Your task to perform on an android device: clear history in the chrome app Image 0: 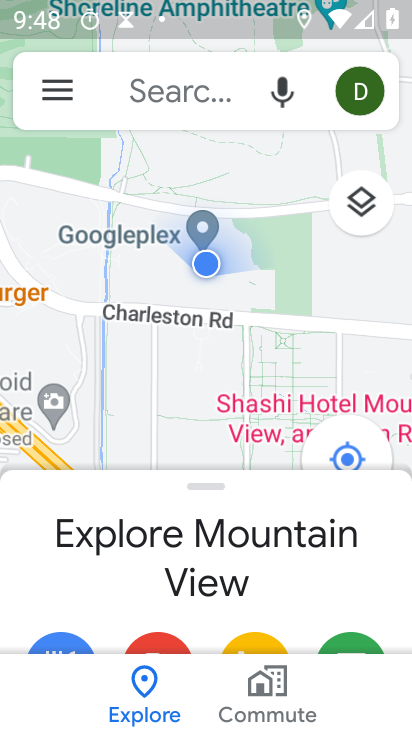
Step 0: press home button
Your task to perform on an android device: clear history in the chrome app Image 1: 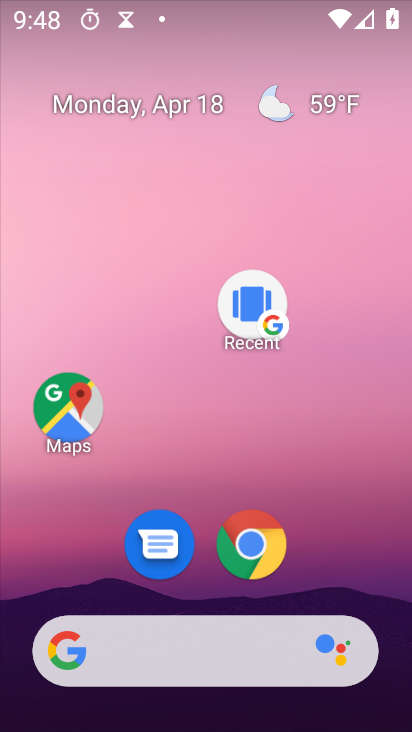
Step 1: drag from (393, 580) to (321, 134)
Your task to perform on an android device: clear history in the chrome app Image 2: 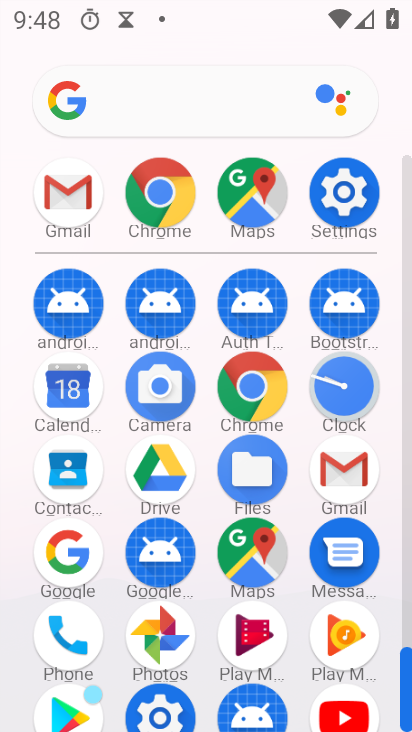
Step 2: click (257, 391)
Your task to perform on an android device: clear history in the chrome app Image 3: 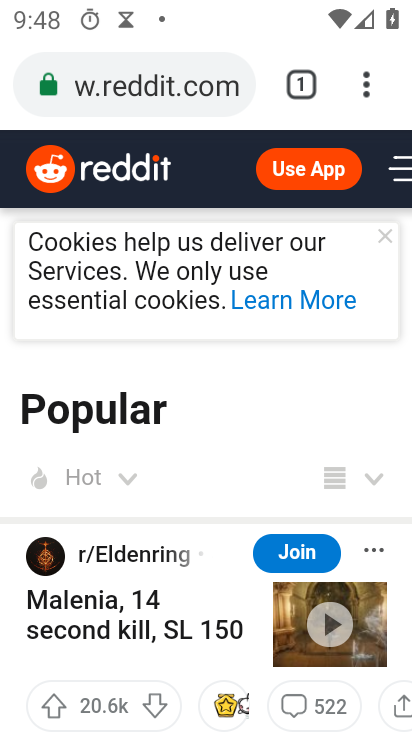
Step 3: click (366, 91)
Your task to perform on an android device: clear history in the chrome app Image 4: 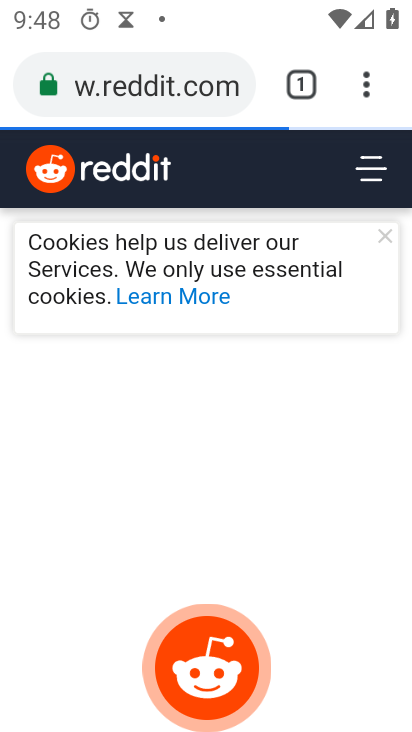
Step 4: drag from (366, 91) to (228, 489)
Your task to perform on an android device: clear history in the chrome app Image 5: 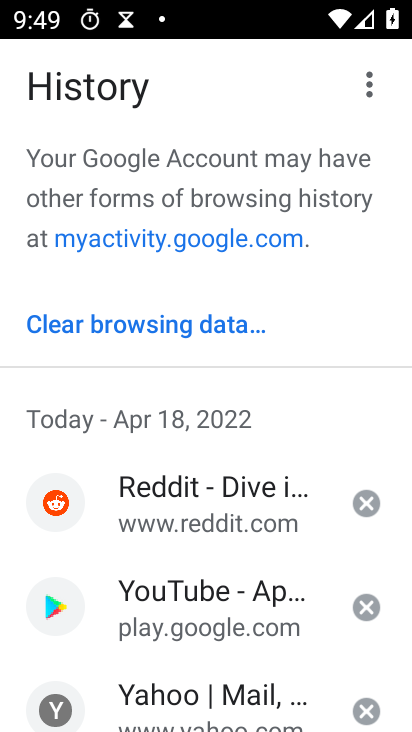
Step 5: click (179, 315)
Your task to perform on an android device: clear history in the chrome app Image 6: 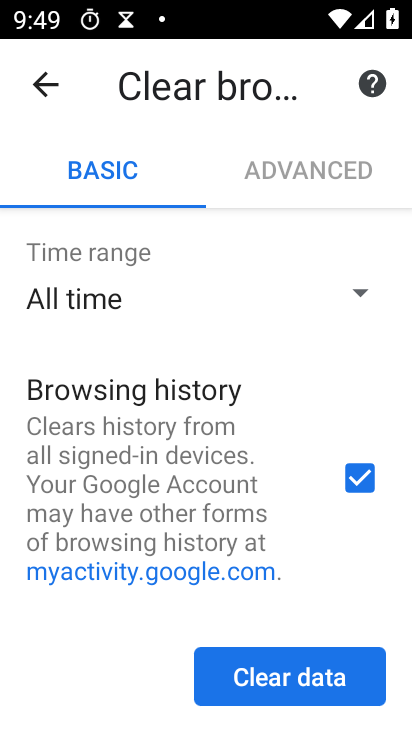
Step 6: click (287, 700)
Your task to perform on an android device: clear history in the chrome app Image 7: 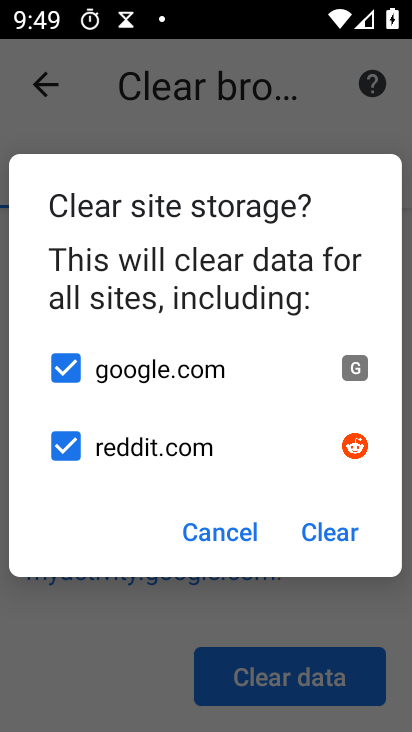
Step 7: click (322, 543)
Your task to perform on an android device: clear history in the chrome app Image 8: 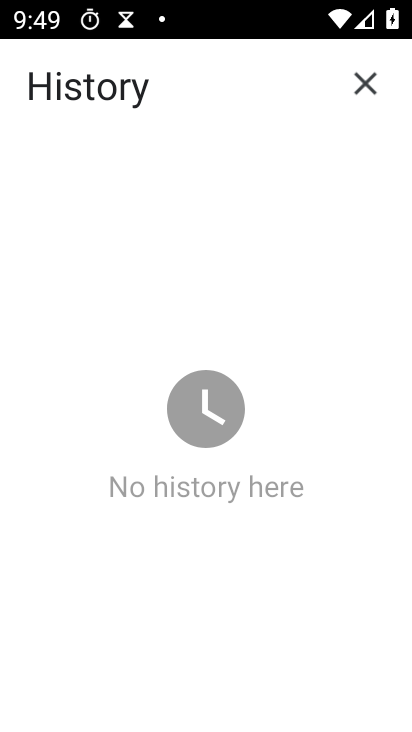
Step 8: task complete